Your task to perform on an android device: Show the shopping cart on costco. Add asus rog to the cart on costco, then select checkout. Image 0: 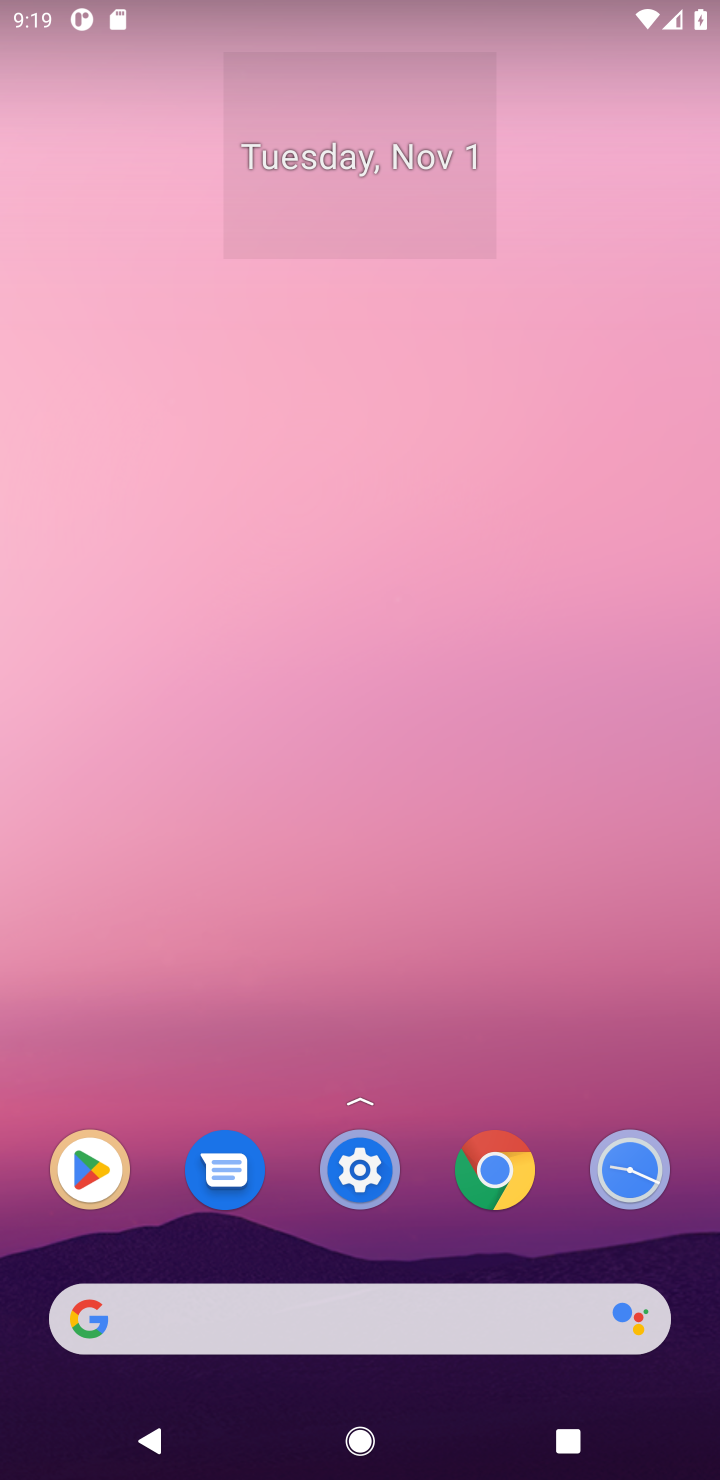
Step 0: click (499, 1180)
Your task to perform on an android device: Show the shopping cart on costco. Add asus rog to the cart on costco, then select checkout. Image 1: 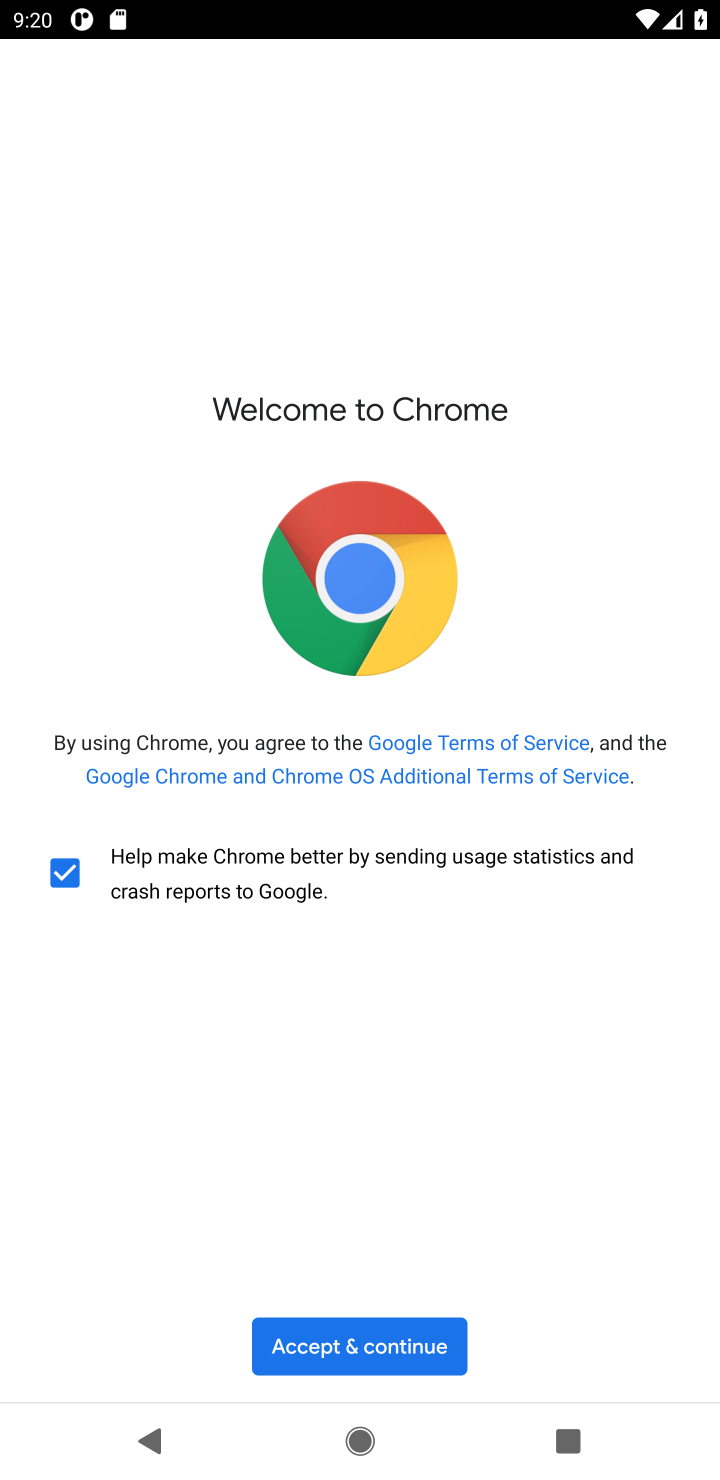
Step 1: click (315, 1339)
Your task to perform on an android device: Show the shopping cart on costco. Add asus rog to the cart on costco, then select checkout. Image 2: 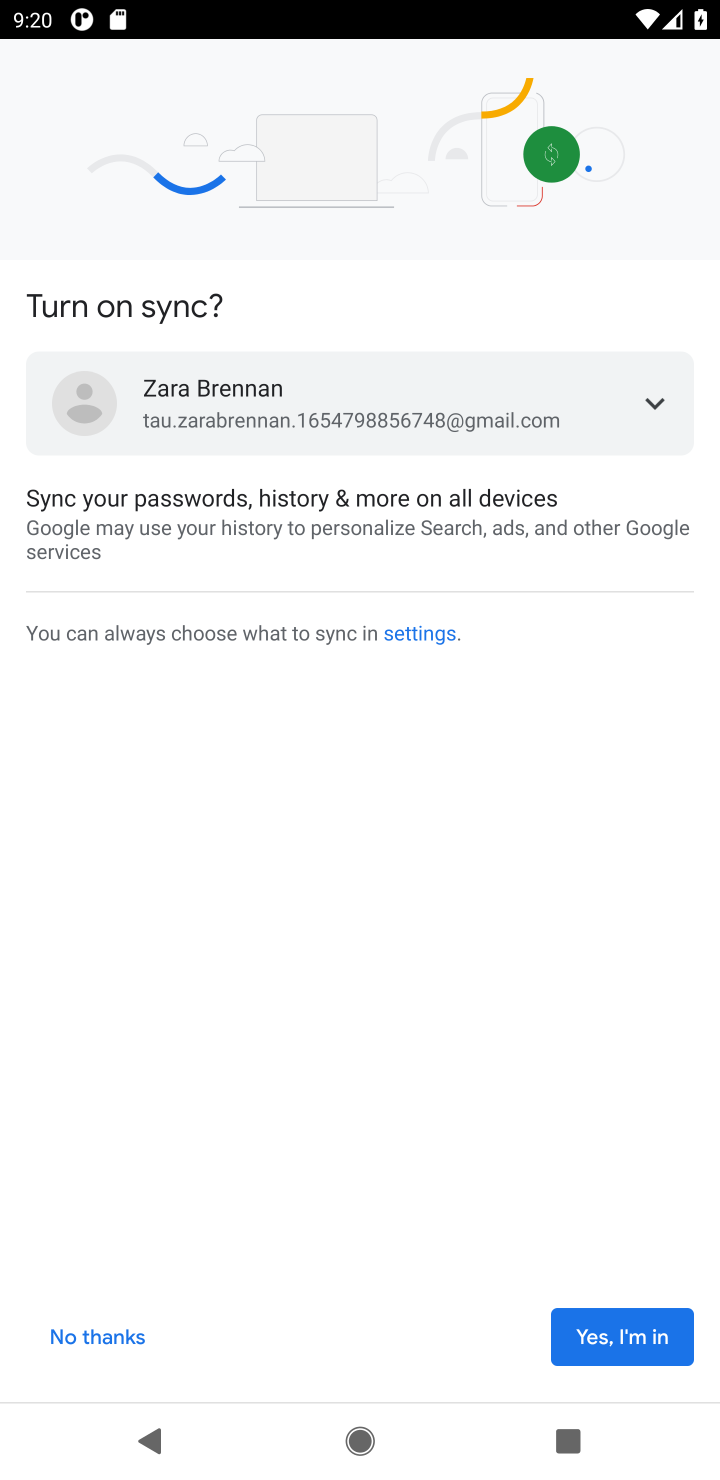
Step 2: click (608, 1334)
Your task to perform on an android device: Show the shopping cart on costco. Add asus rog to the cart on costco, then select checkout. Image 3: 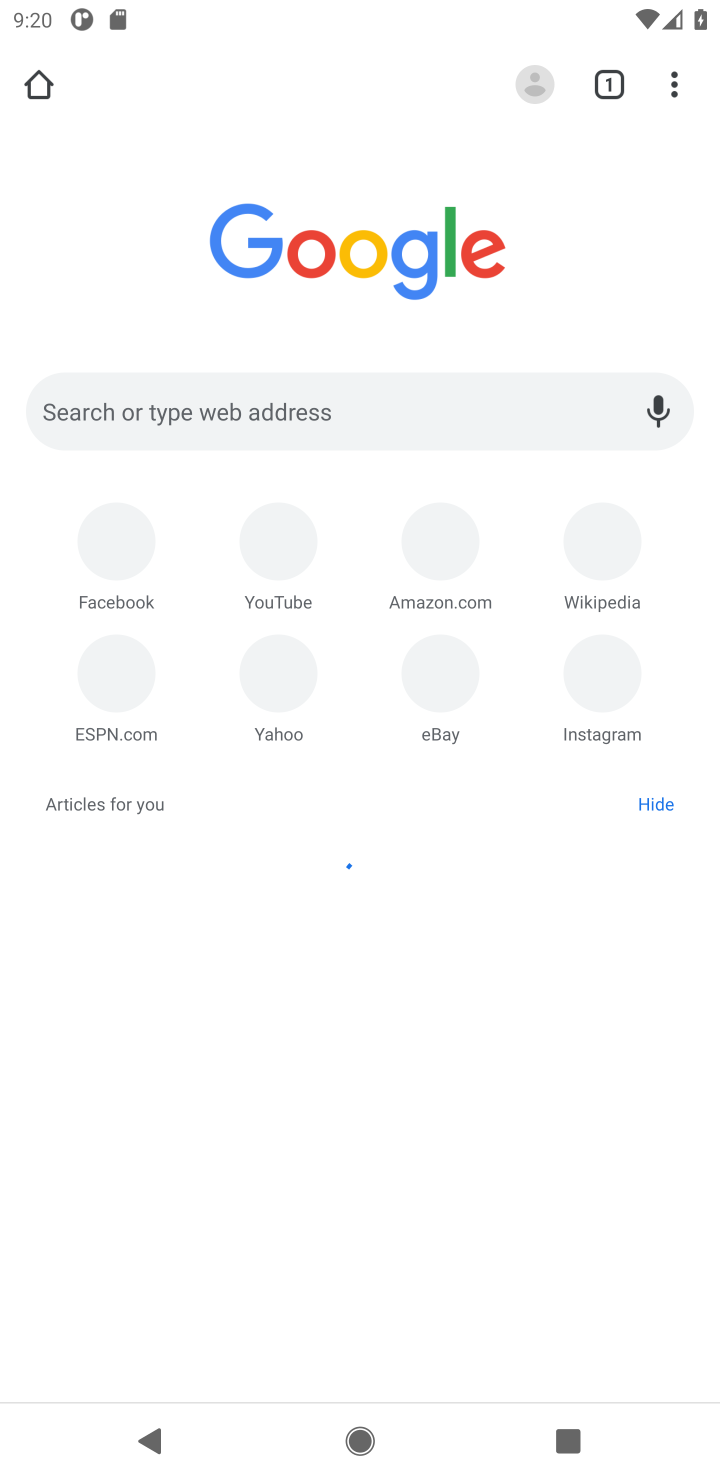
Step 3: click (158, 400)
Your task to perform on an android device: Show the shopping cart on costco. Add asus rog to the cart on costco, then select checkout. Image 4: 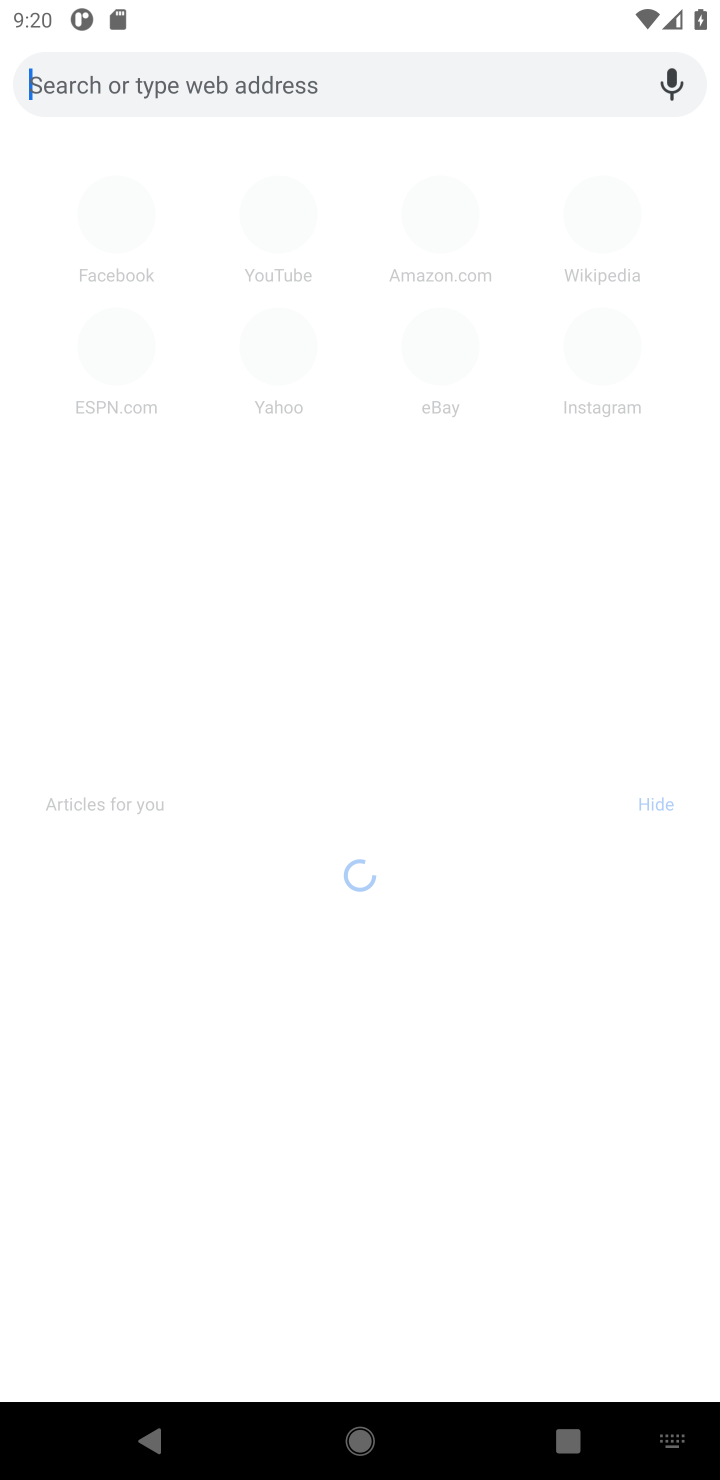
Step 4: type "costco"
Your task to perform on an android device: Show the shopping cart on costco. Add asus rog to the cart on costco, then select checkout. Image 5: 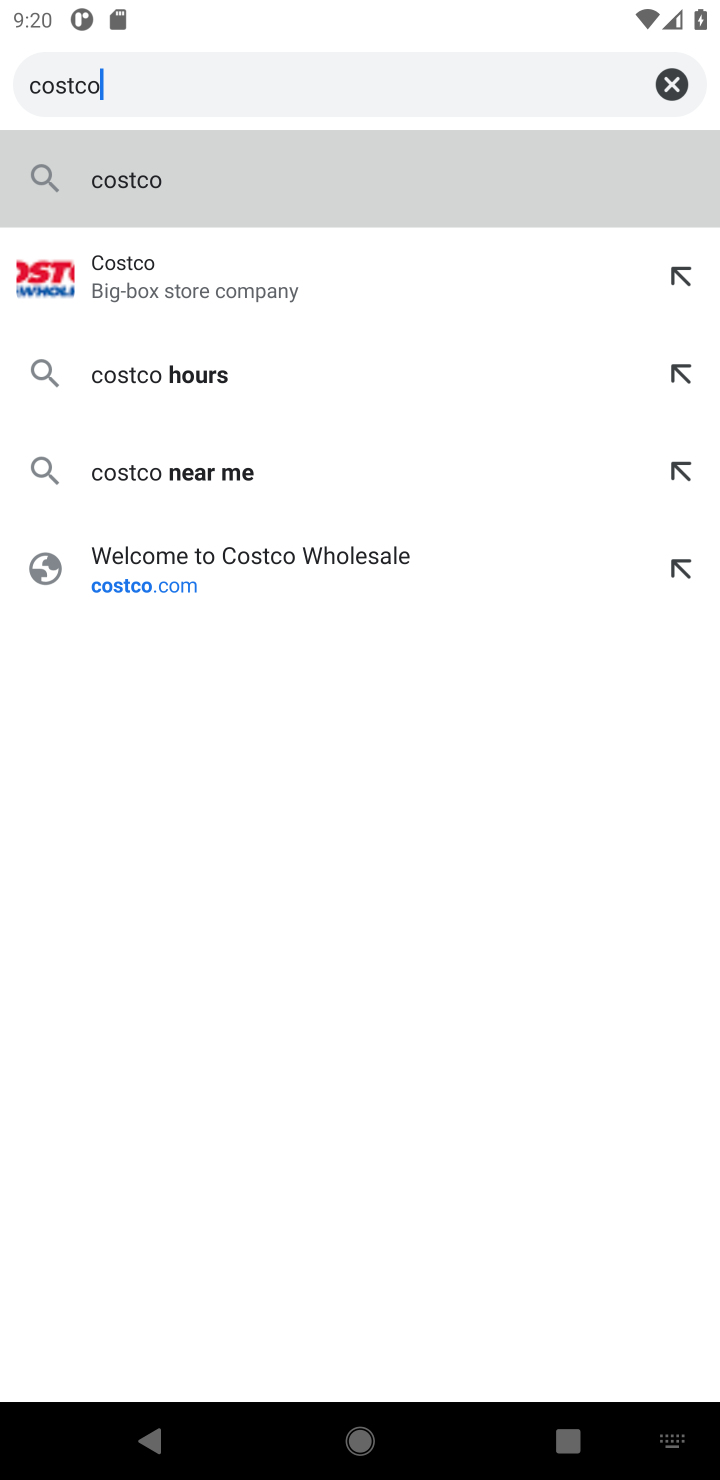
Step 5: click (242, 275)
Your task to perform on an android device: Show the shopping cart on costco. Add asus rog to the cart on costco, then select checkout. Image 6: 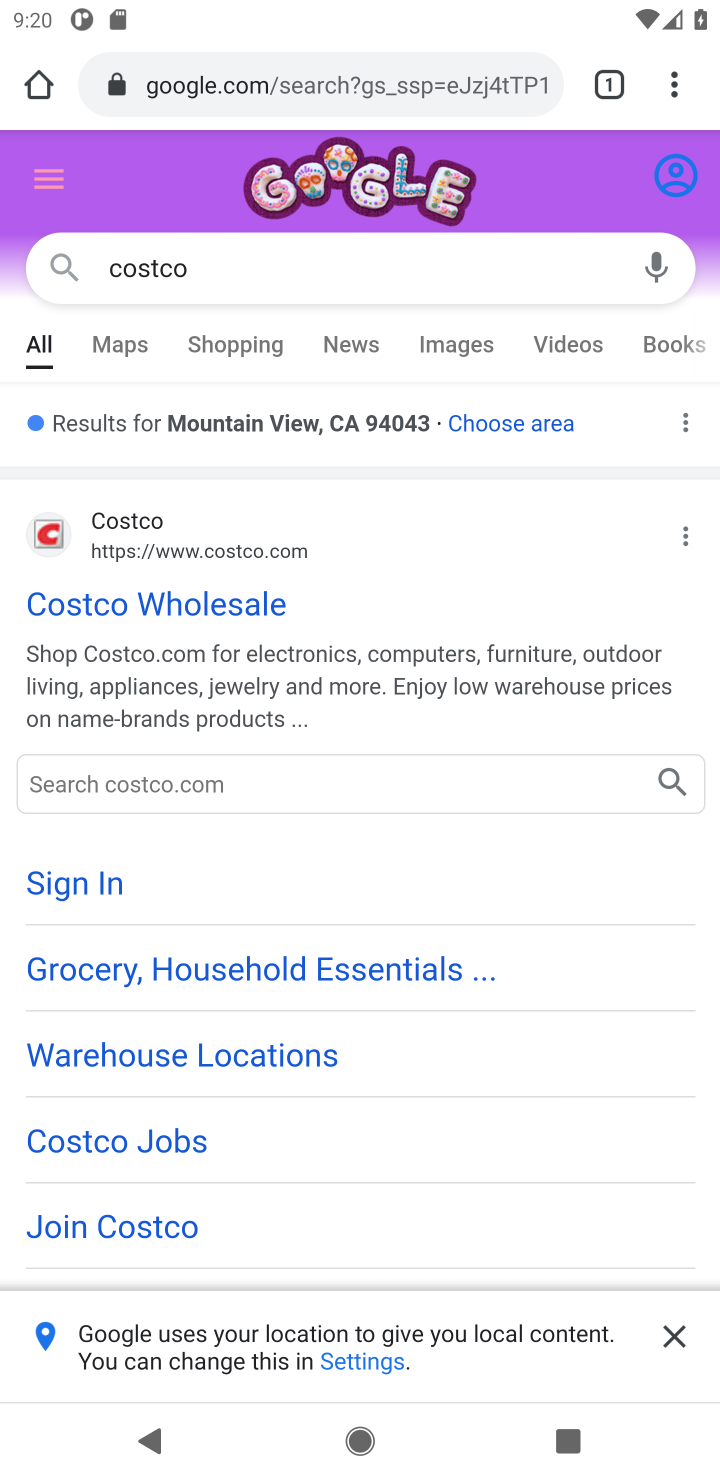
Step 6: click (122, 607)
Your task to perform on an android device: Show the shopping cart on costco. Add asus rog to the cart on costco, then select checkout. Image 7: 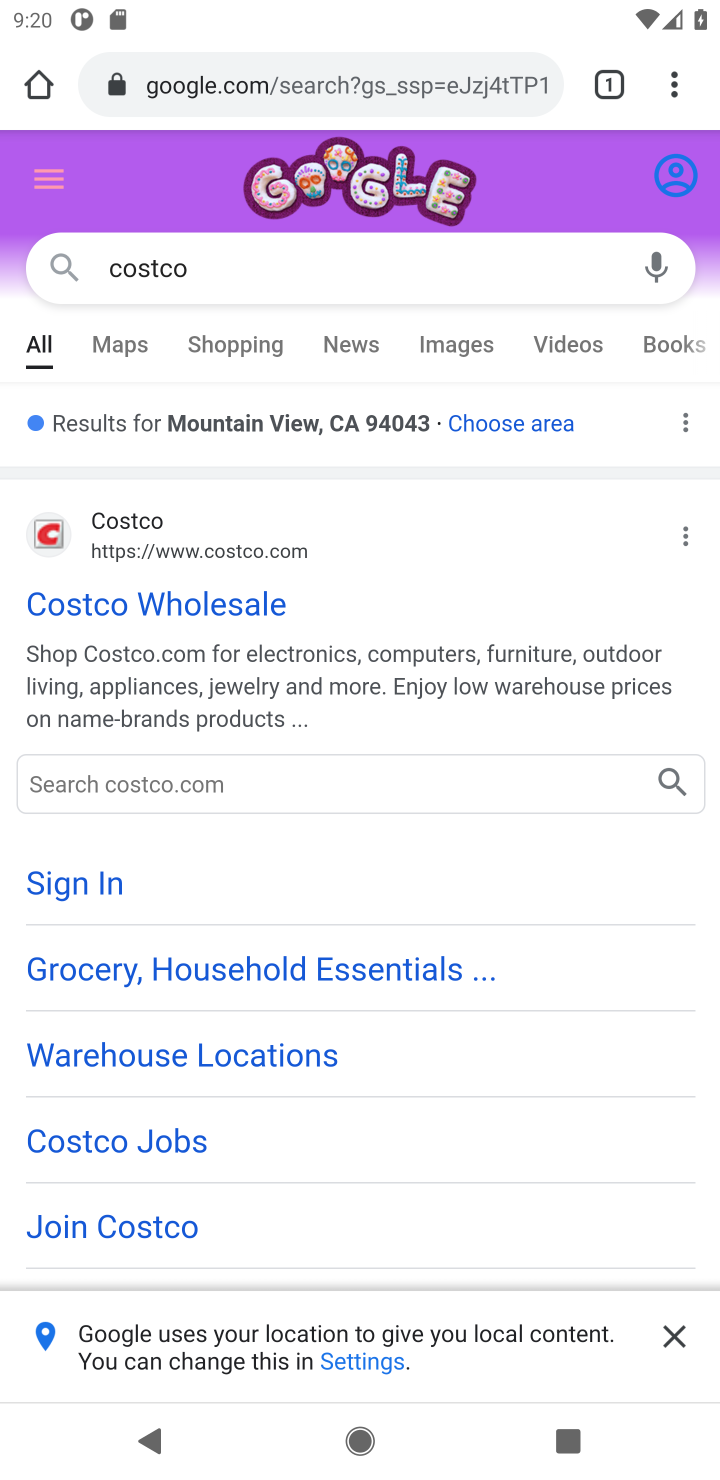
Step 7: click (162, 605)
Your task to perform on an android device: Show the shopping cart on costco. Add asus rog to the cart on costco, then select checkout. Image 8: 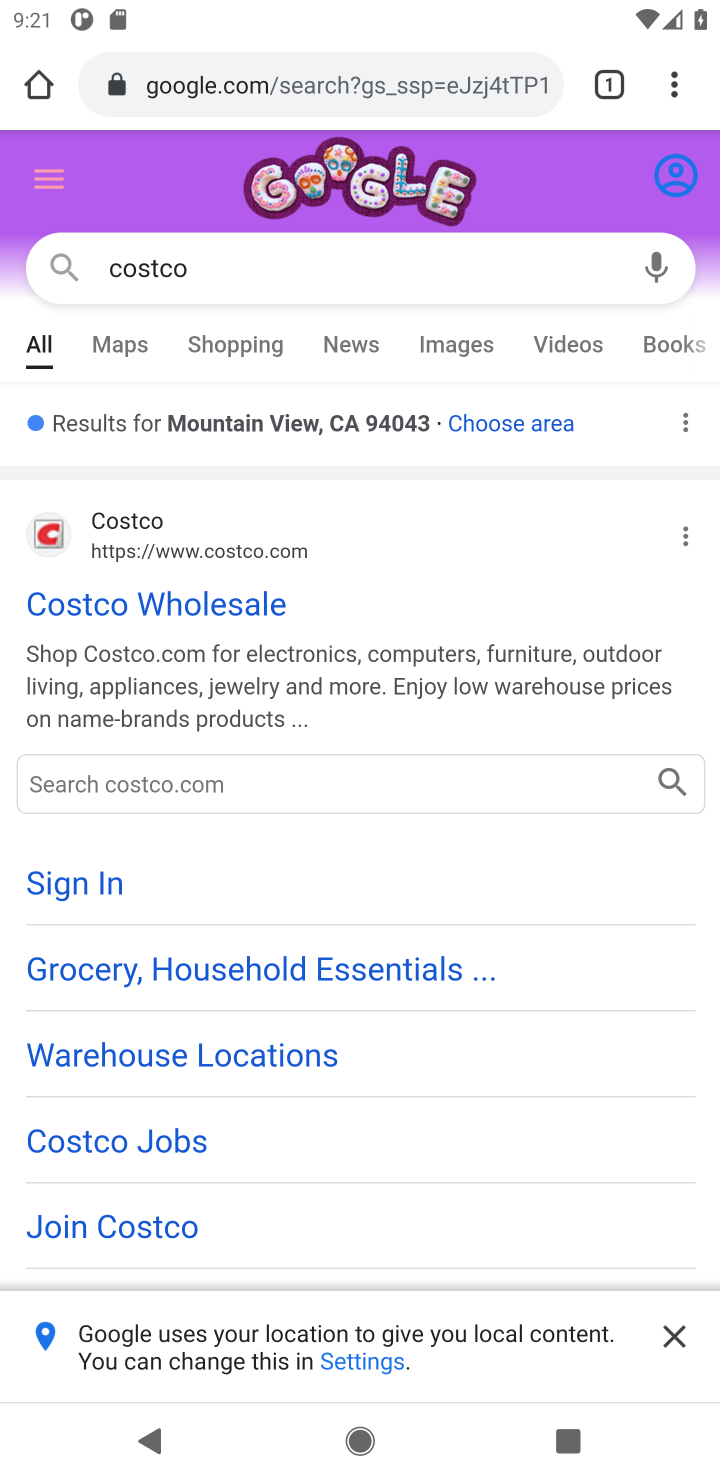
Step 8: click (89, 607)
Your task to perform on an android device: Show the shopping cart on costco. Add asus rog to the cart on costco, then select checkout. Image 9: 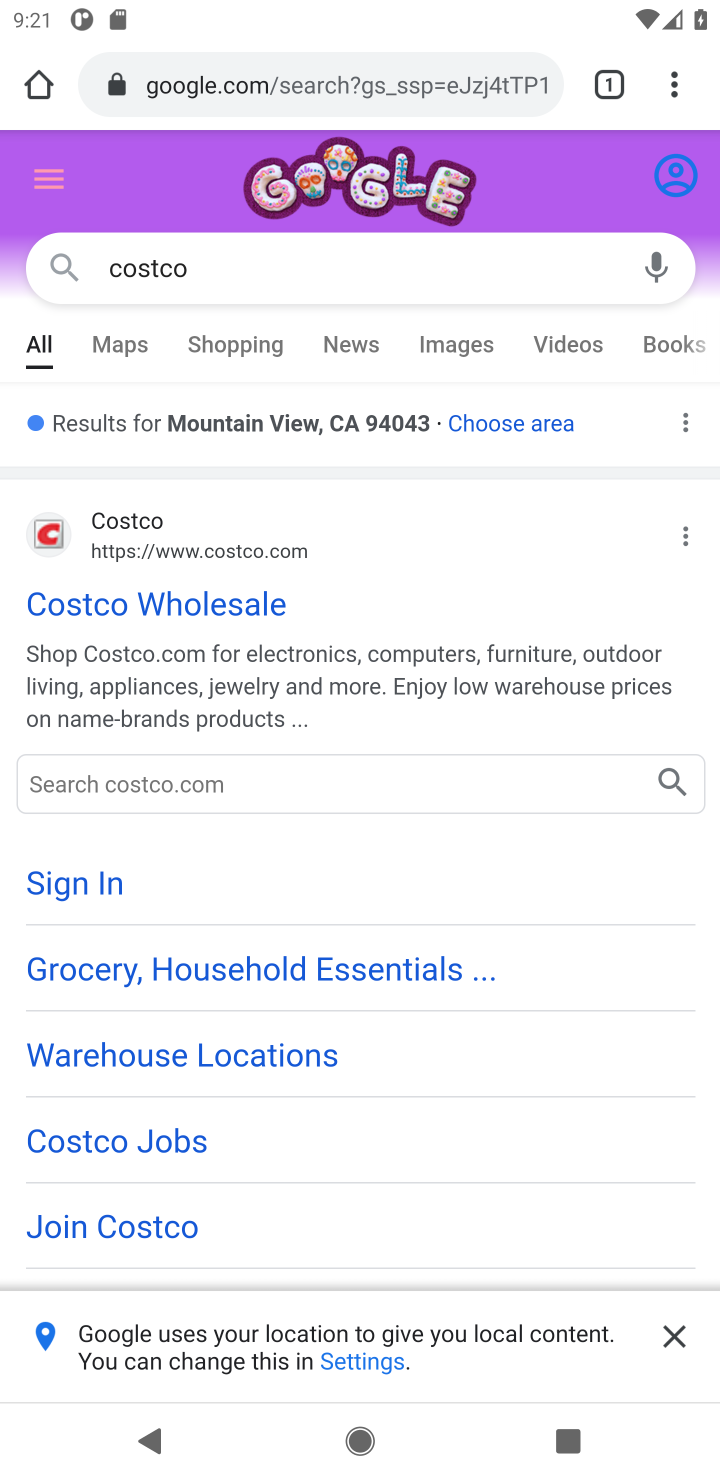
Step 9: click (66, 620)
Your task to perform on an android device: Show the shopping cart on costco. Add asus rog to the cart on costco, then select checkout. Image 10: 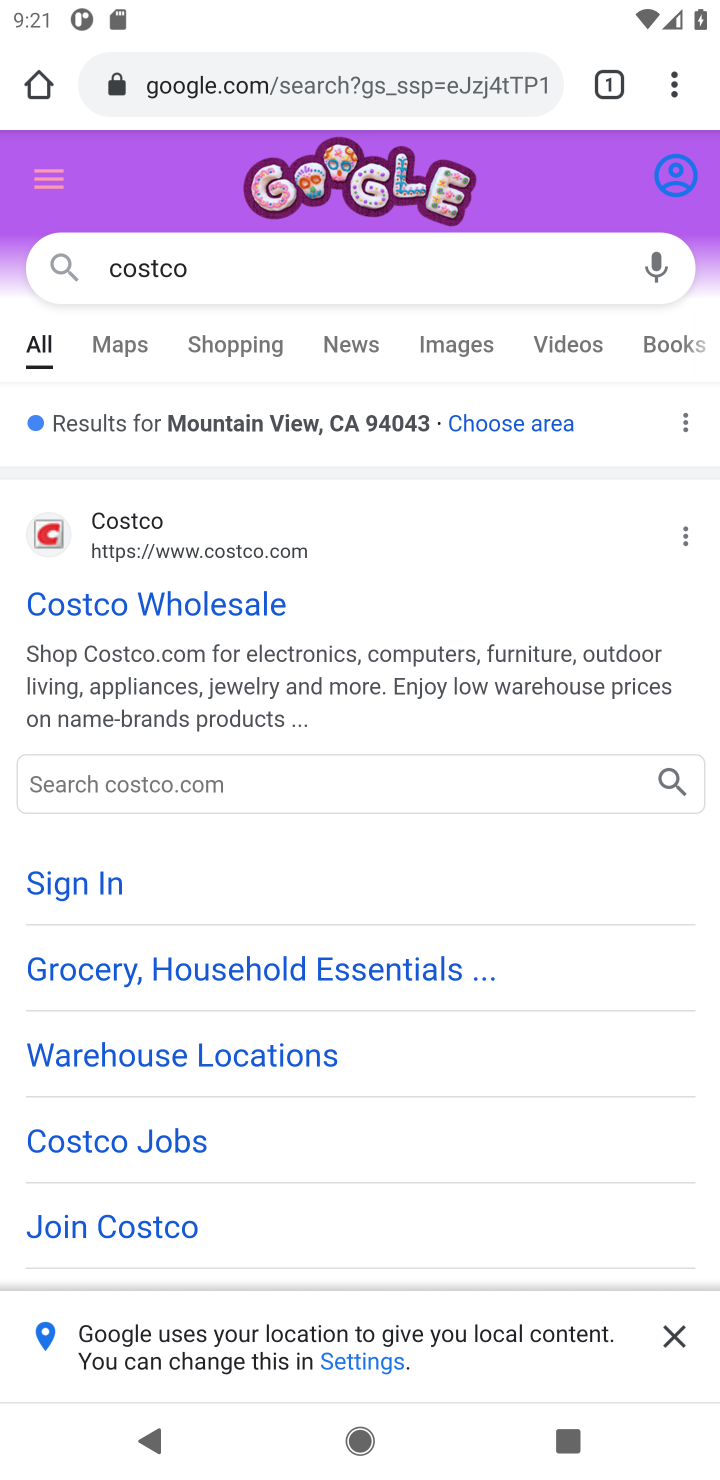
Step 10: click (66, 620)
Your task to perform on an android device: Show the shopping cart on costco. Add asus rog to the cart on costco, then select checkout. Image 11: 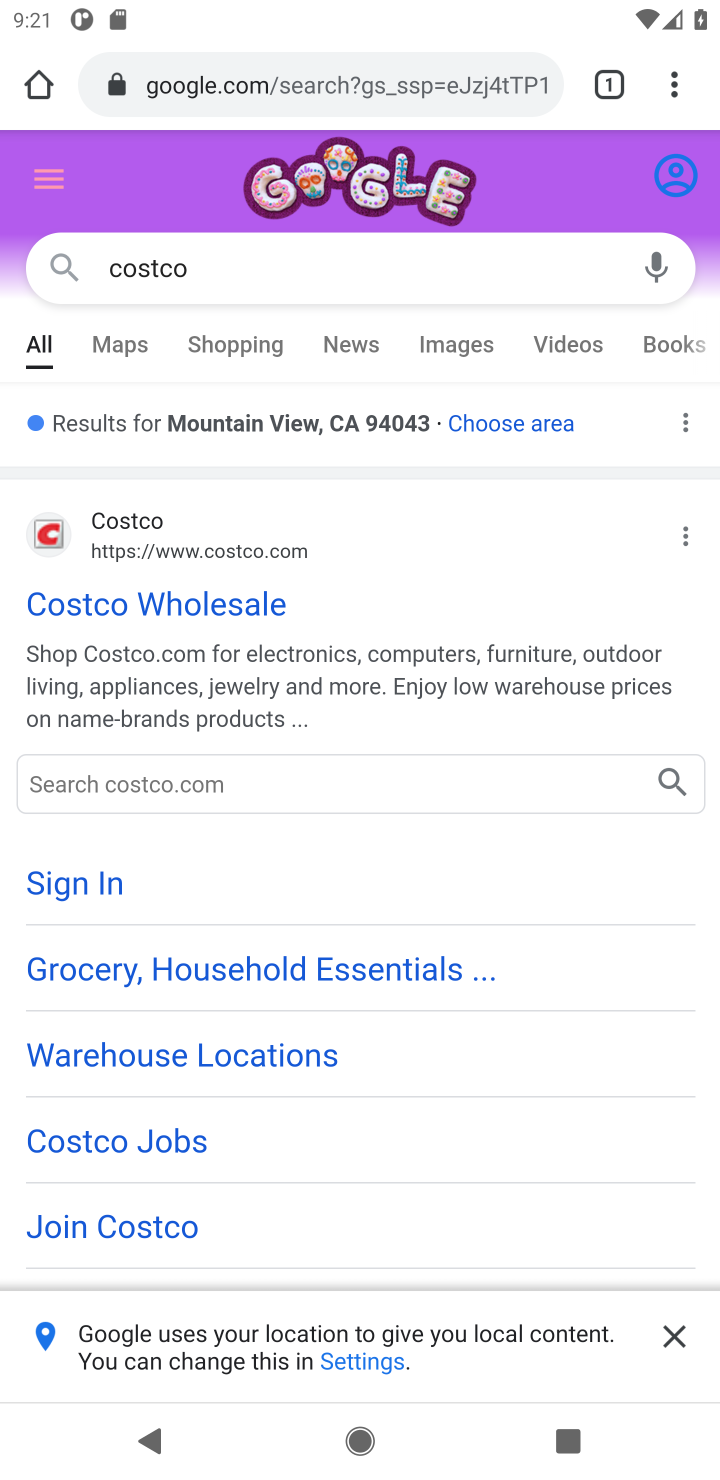
Step 11: click (66, 620)
Your task to perform on an android device: Show the shopping cart on costco. Add asus rog to the cart on costco, then select checkout. Image 12: 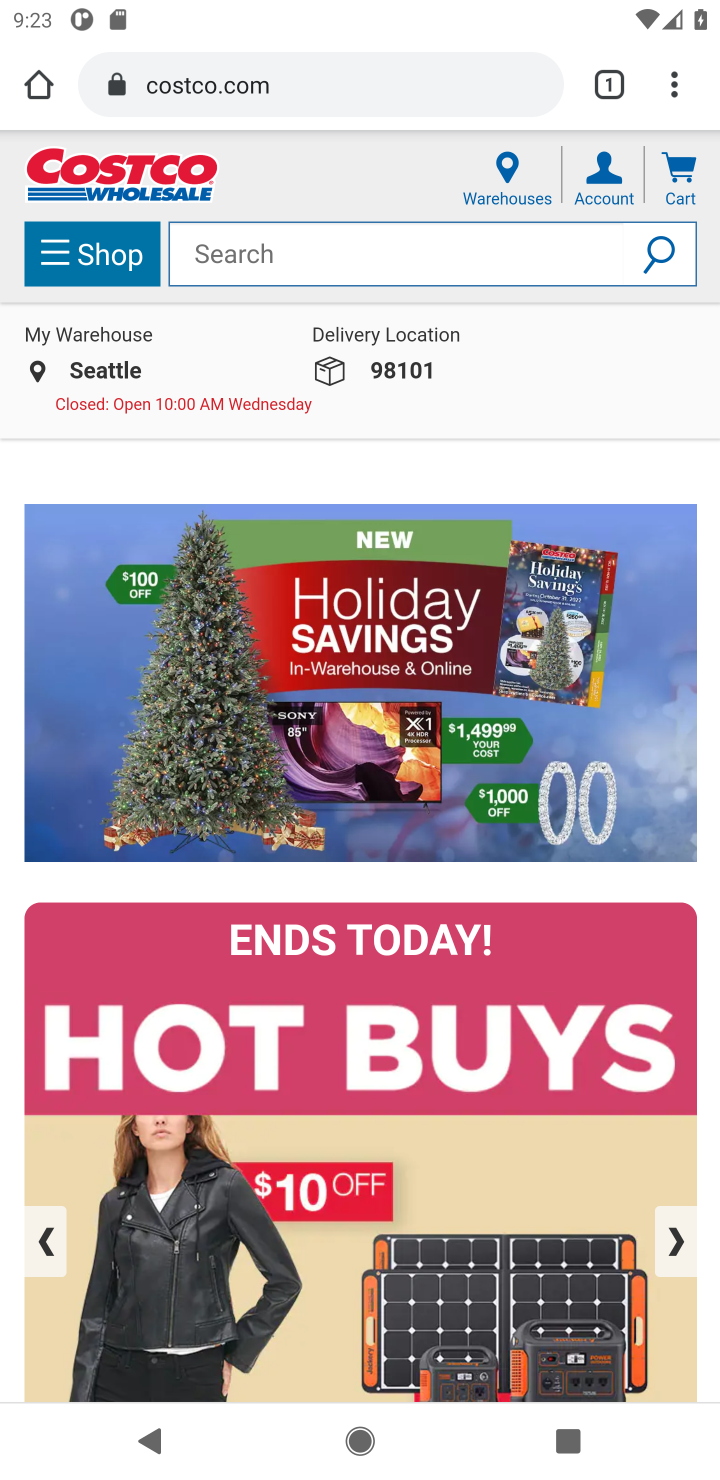
Step 12: click (362, 234)
Your task to perform on an android device: Show the shopping cart on costco. Add asus rog to the cart on costco, then select checkout. Image 13: 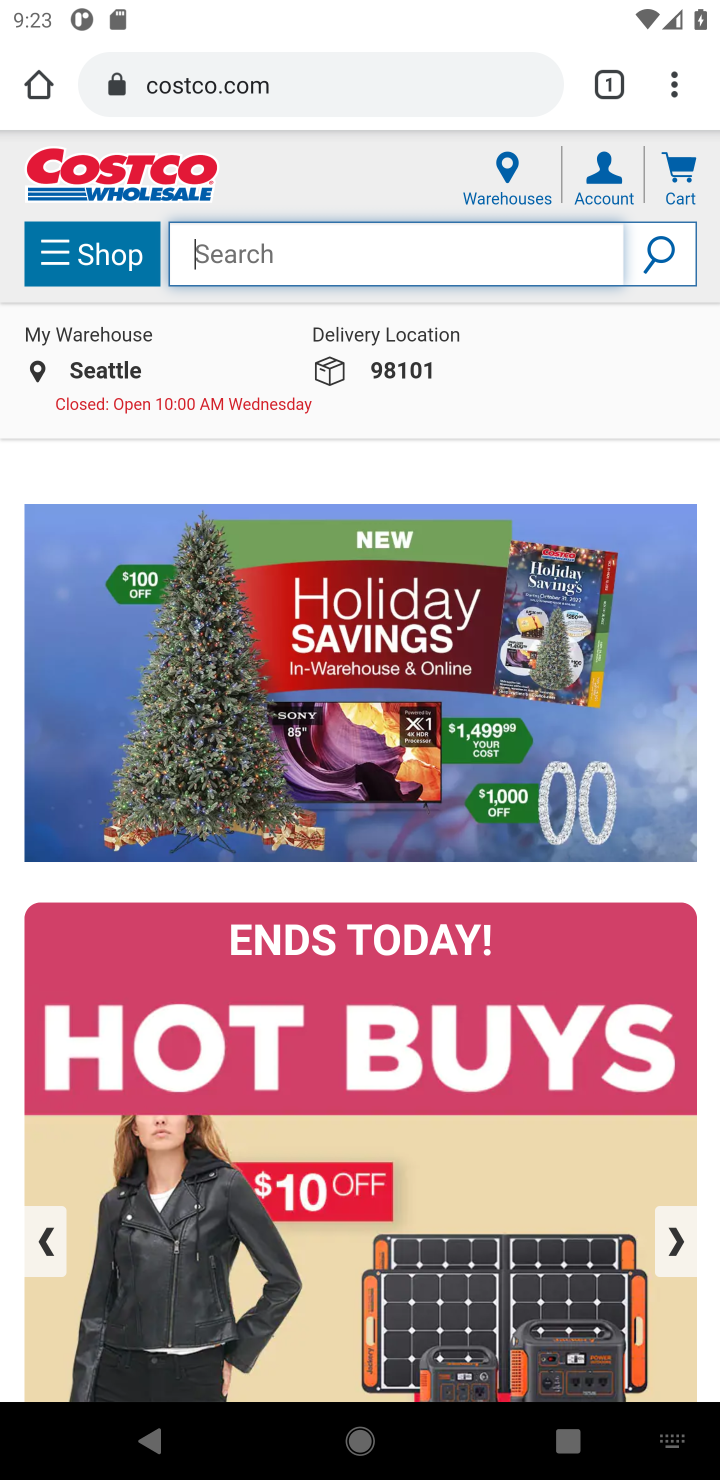
Step 13: type "asus rog"
Your task to perform on an android device: Show the shopping cart on costco. Add asus rog to the cart on costco, then select checkout. Image 14: 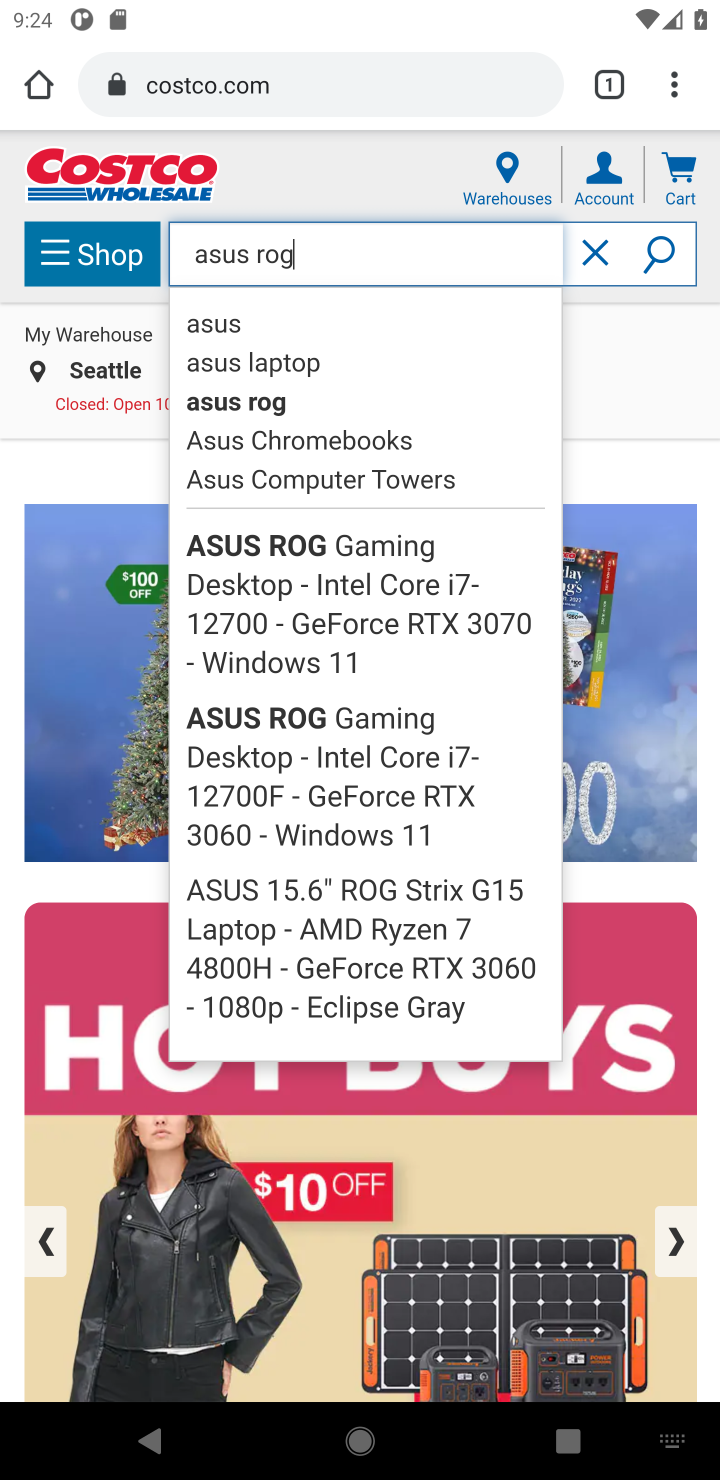
Step 14: click (247, 324)
Your task to perform on an android device: Show the shopping cart on costco. Add asus rog to the cart on costco, then select checkout. Image 15: 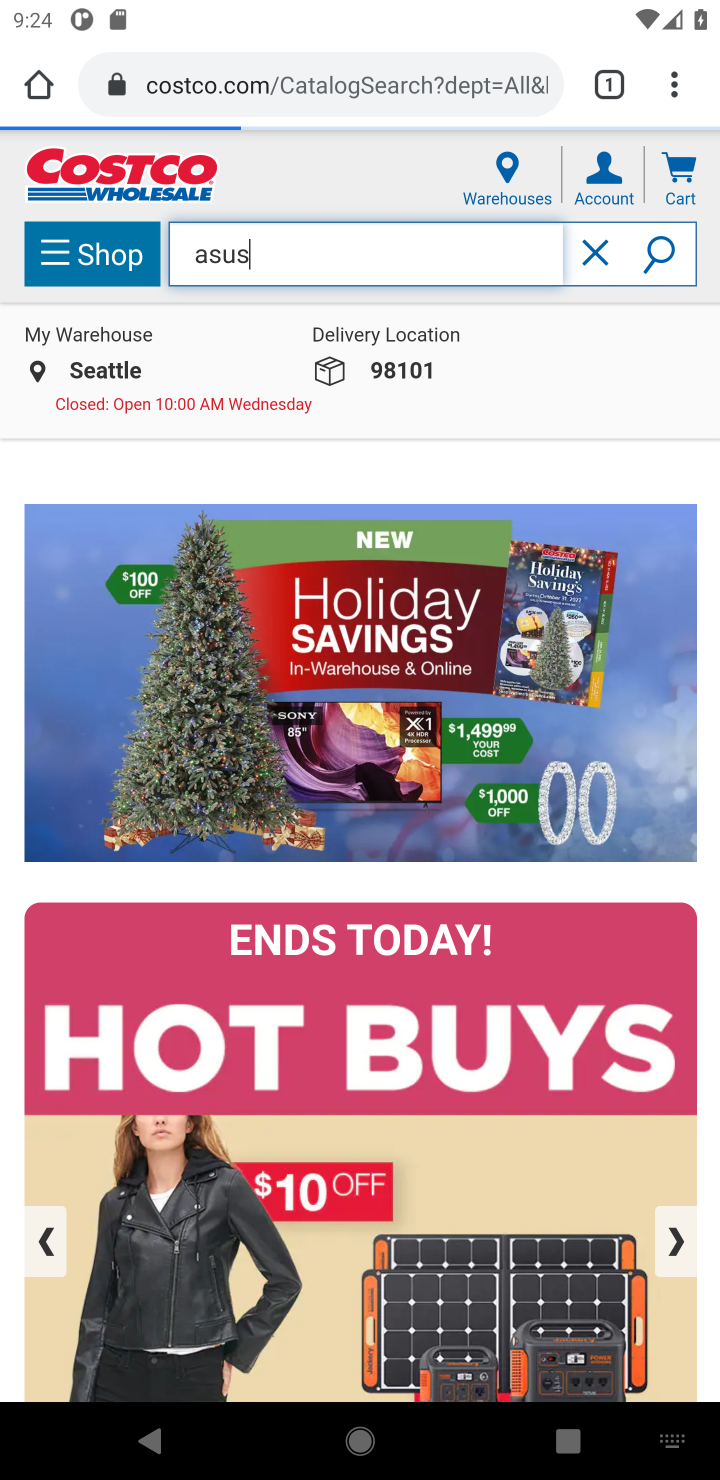
Step 15: click (659, 255)
Your task to perform on an android device: Show the shopping cart on costco. Add asus rog to the cart on costco, then select checkout. Image 16: 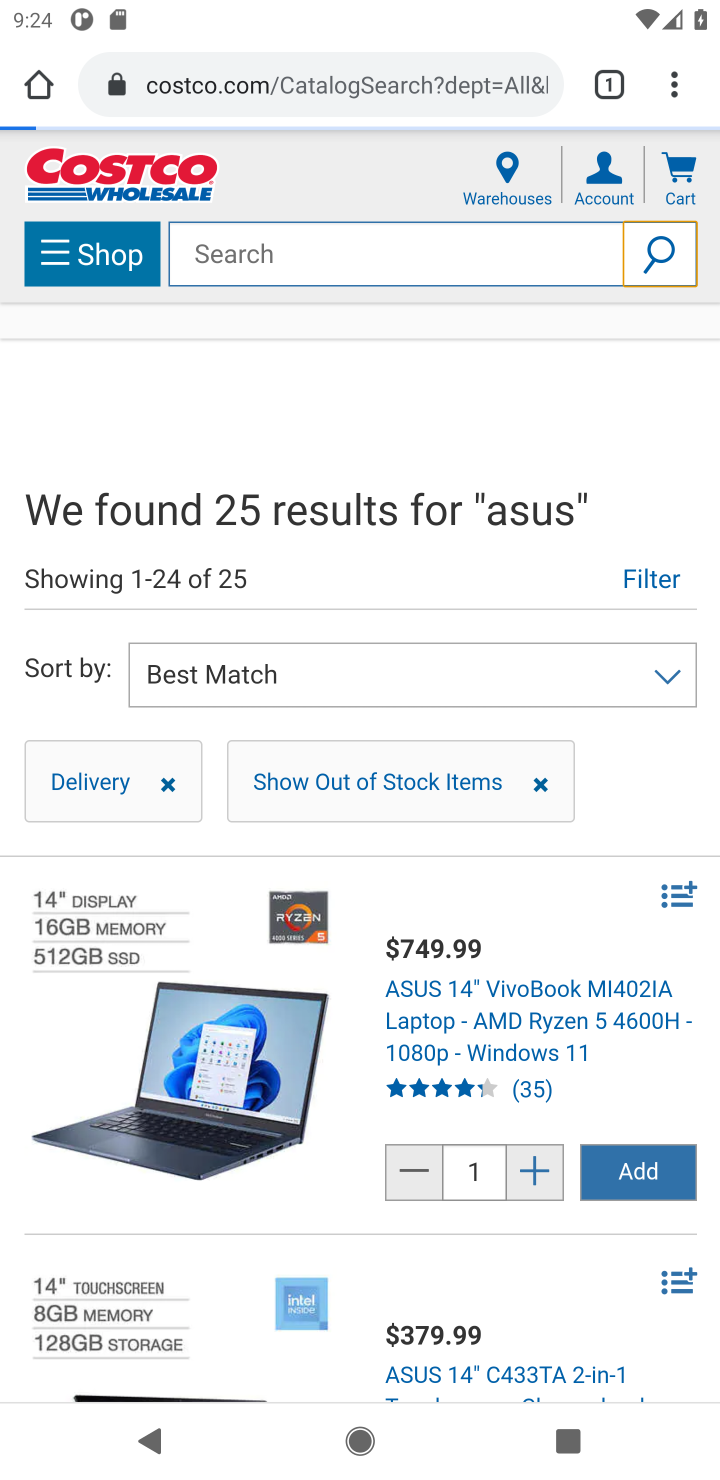
Step 16: click (621, 1175)
Your task to perform on an android device: Show the shopping cart on costco. Add asus rog to the cart on costco, then select checkout. Image 17: 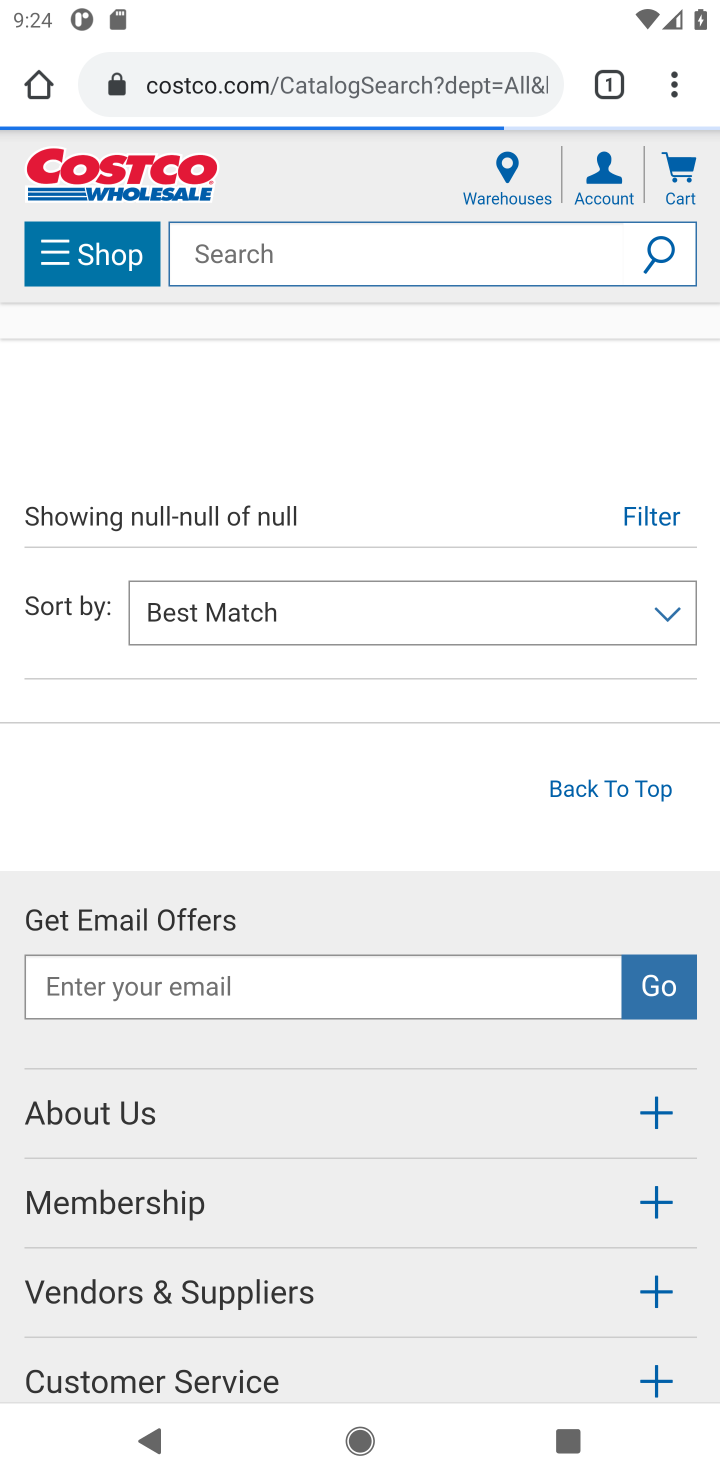
Step 17: task complete